Your task to perform on an android device: Open Android settings Image 0: 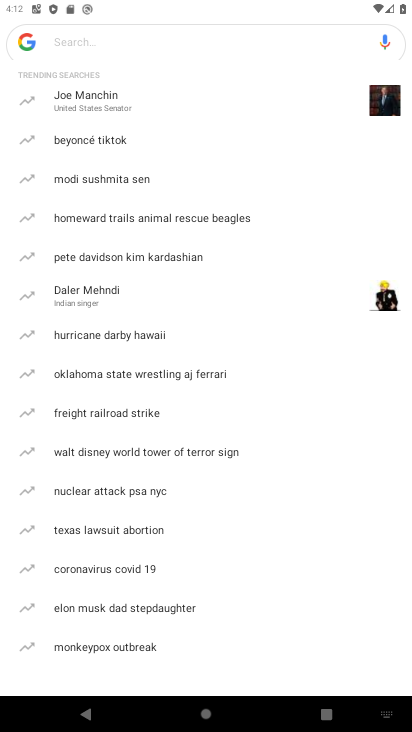
Step 0: press home button
Your task to perform on an android device: Open Android settings Image 1: 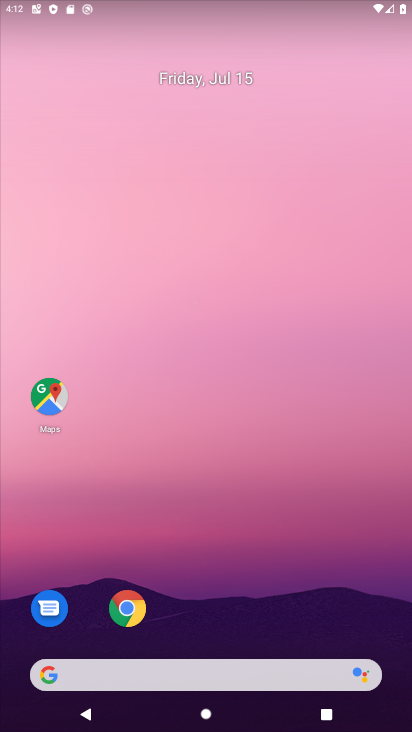
Step 1: drag from (200, 614) to (182, 15)
Your task to perform on an android device: Open Android settings Image 2: 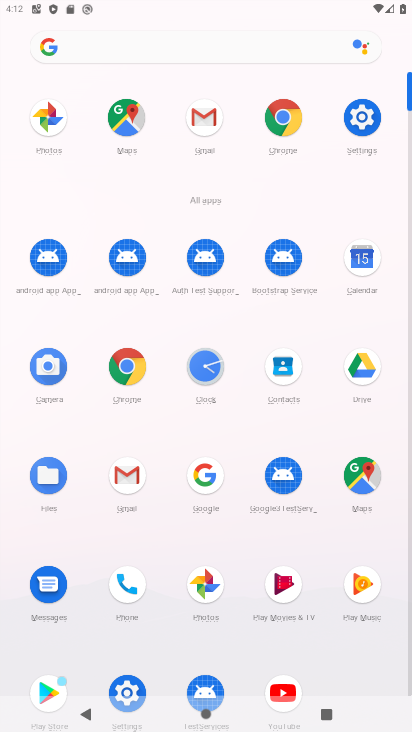
Step 2: click (373, 129)
Your task to perform on an android device: Open Android settings Image 3: 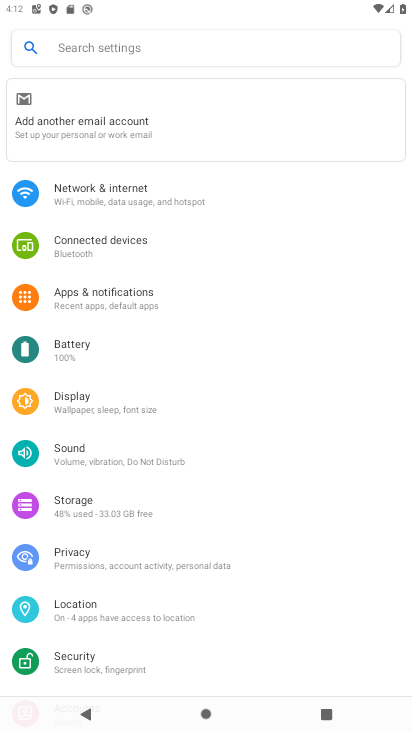
Step 3: drag from (161, 611) to (201, 260)
Your task to perform on an android device: Open Android settings Image 4: 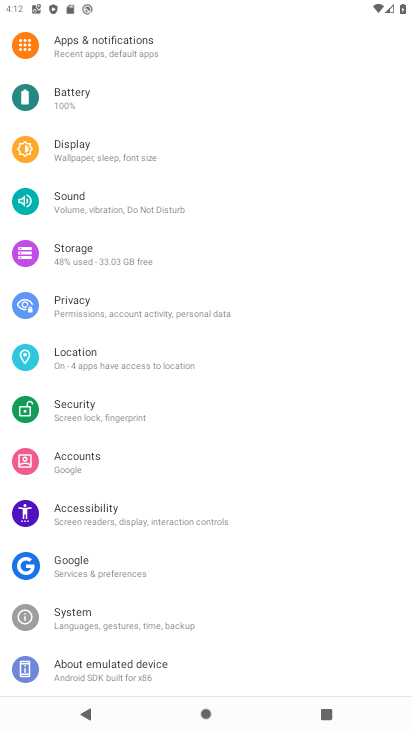
Step 4: drag from (110, 609) to (129, 441)
Your task to perform on an android device: Open Android settings Image 5: 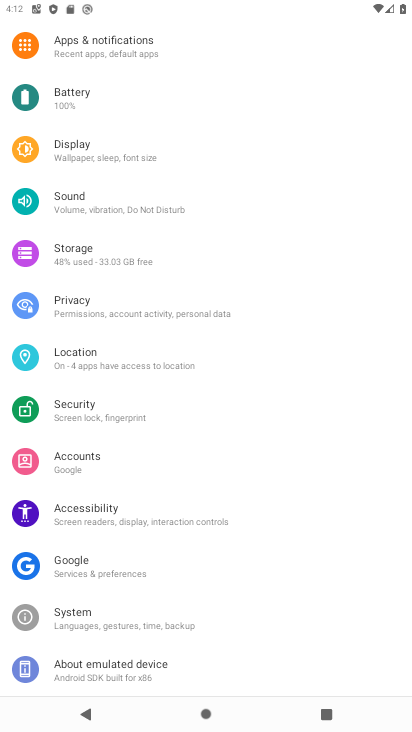
Step 5: click (94, 677)
Your task to perform on an android device: Open Android settings Image 6: 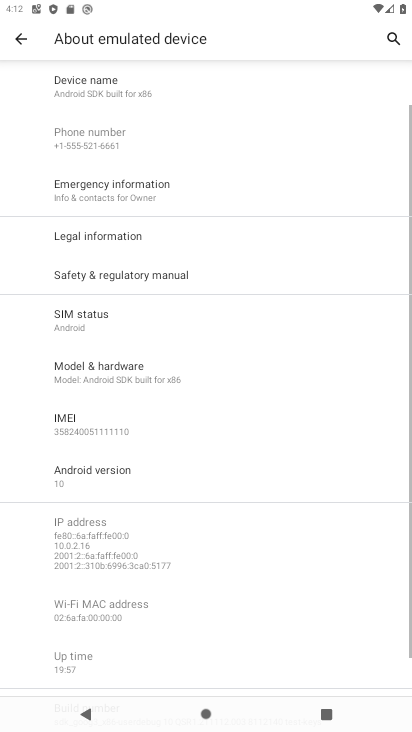
Step 6: click (103, 491)
Your task to perform on an android device: Open Android settings Image 7: 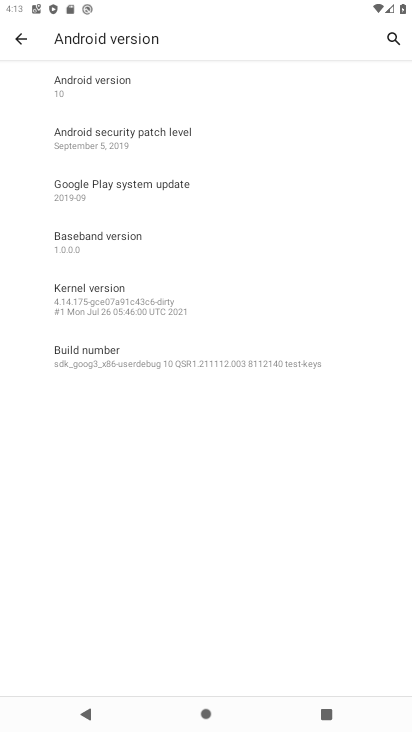
Step 7: task complete